Your task to perform on an android device: refresh tabs in the chrome app Image 0: 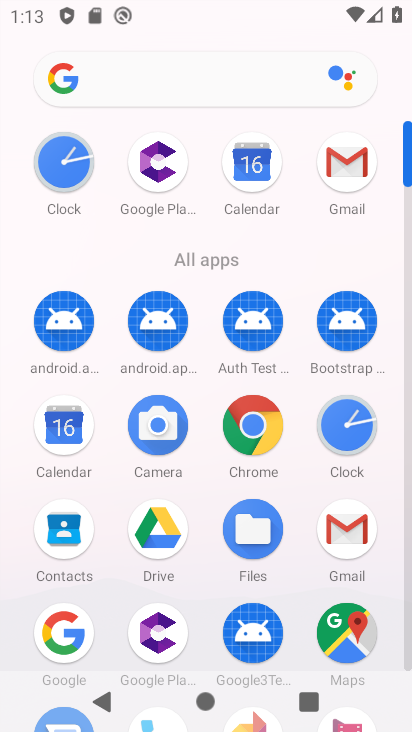
Step 0: press home button
Your task to perform on an android device: refresh tabs in the chrome app Image 1: 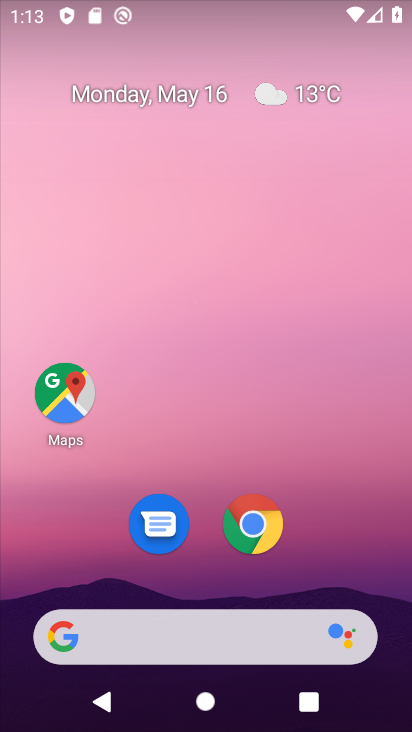
Step 1: click (261, 523)
Your task to perform on an android device: refresh tabs in the chrome app Image 2: 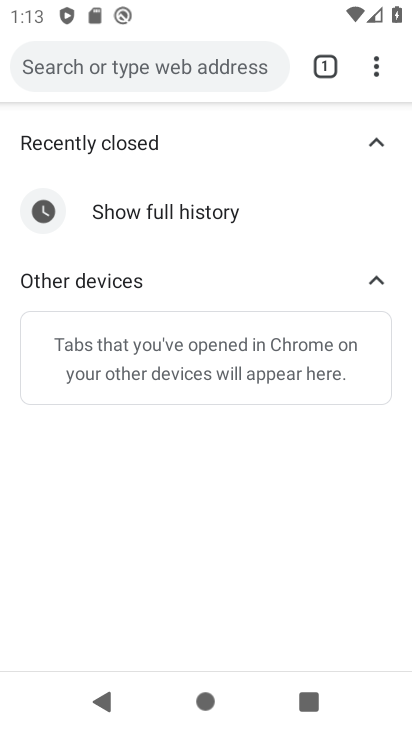
Step 2: click (376, 65)
Your task to perform on an android device: refresh tabs in the chrome app Image 3: 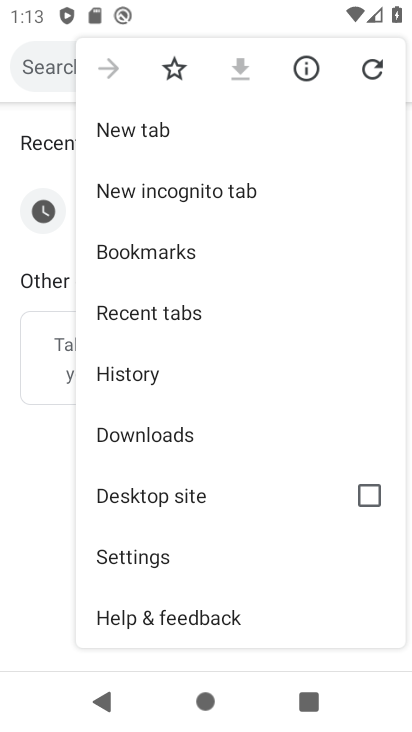
Step 3: click (376, 65)
Your task to perform on an android device: refresh tabs in the chrome app Image 4: 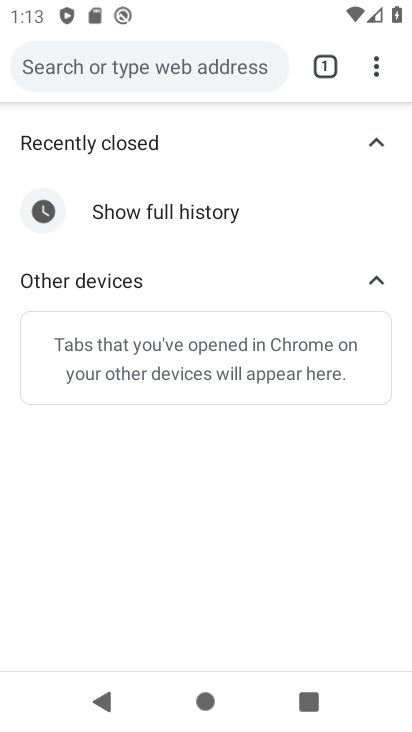
Step 4: click (376, 65)
Your task to perform on an android device: refresh tabs in the chrome app Image 5: 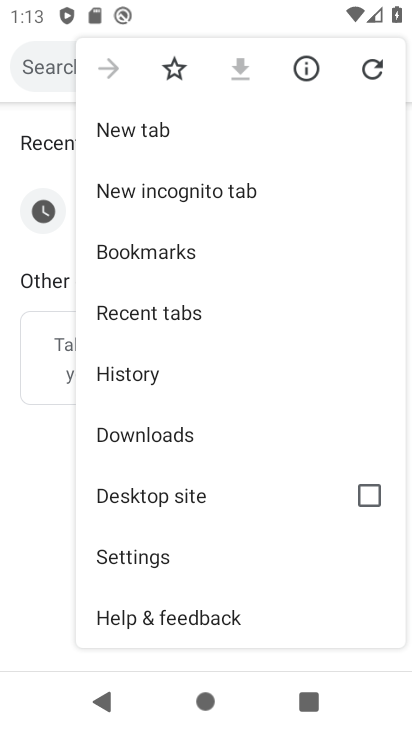
Step 5: click (247, 124)
Your task to perform on an android device: refresh tabs in the chrome app Image 6: 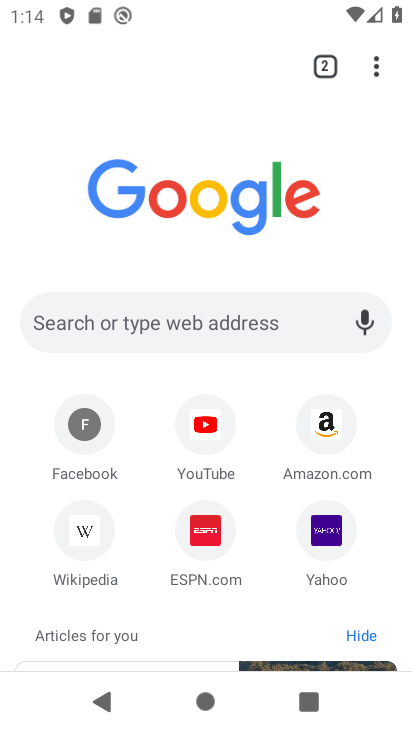
Step 6: click (374, 62)
Your task to perform on an android device: refresh tabs in the chrome app Image 7: 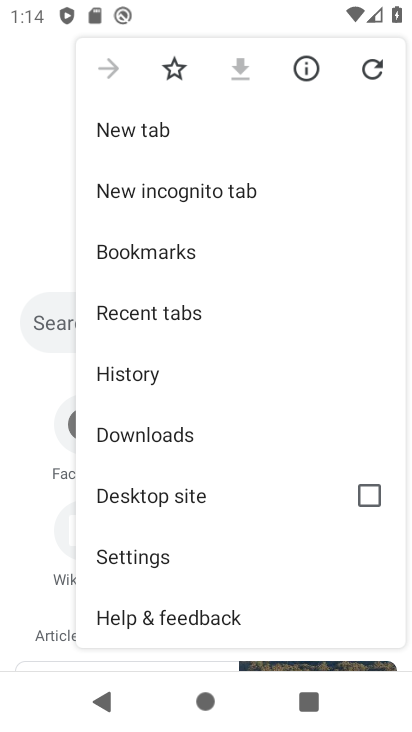
Step 7: click (374, 62)
Your task to perform on an android device: refresh tabs in the chrome app Image 8: 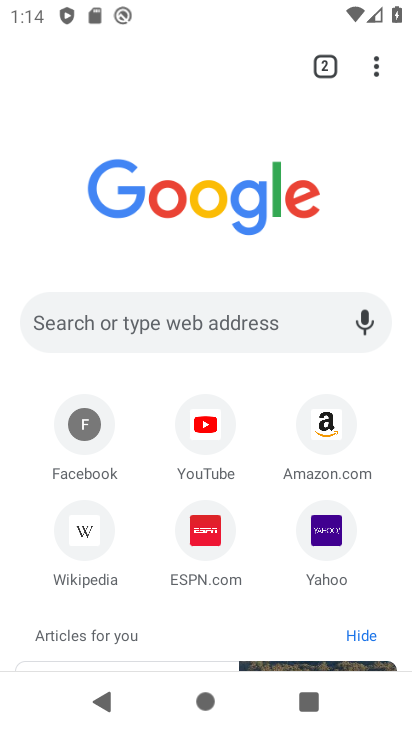
Step 8: task complete